Your task to perform on an android device: turn on improve location accuracy Image 0: 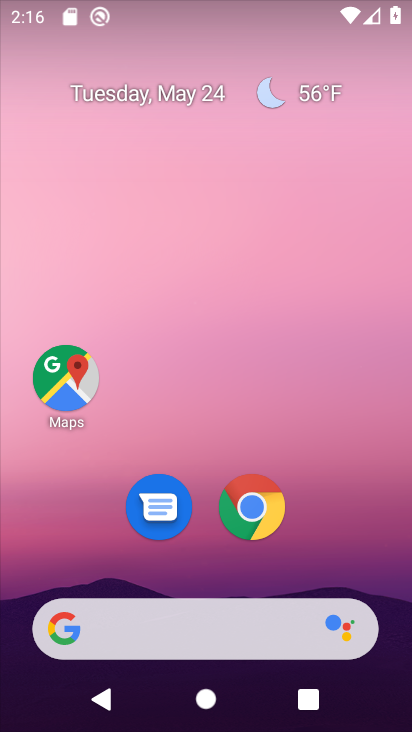
Step 0: press home button
Your task to perform on an android device: turn on improve location accuracy Image 1: 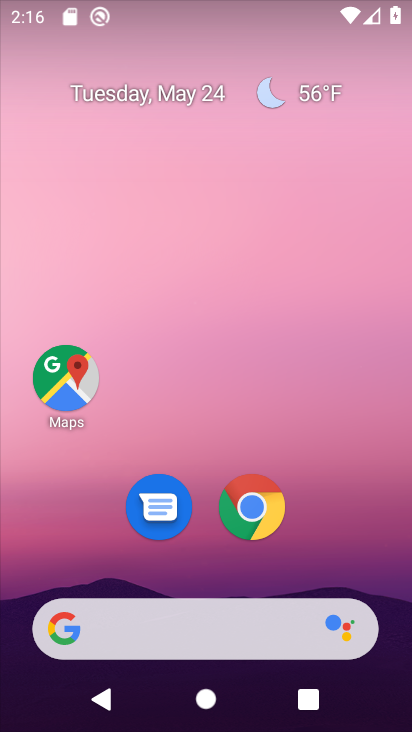
Step 1: drag from (228, 440) to (259, 37)
Your task to perform on an android device: turn on improve location accuracy Image 2: 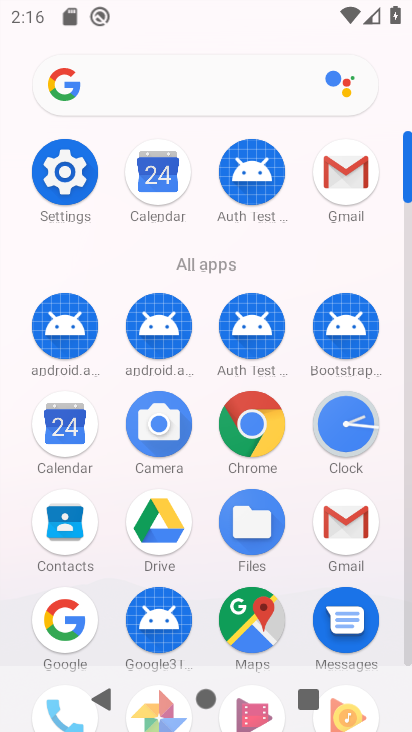
Step 2: click (54, 167)
Your task to perform on an android device: turn on improve location accuracy Image 3: 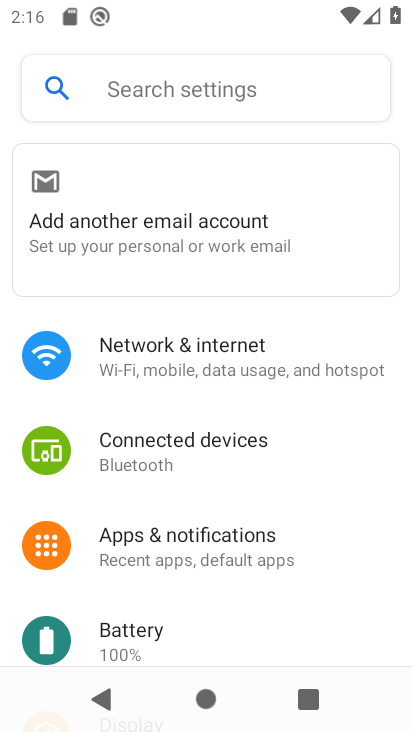
Step 3: drag from (194, 585) to (243, 166)
Your task to perform on an android device: turn on improve location accuracy Image 4: 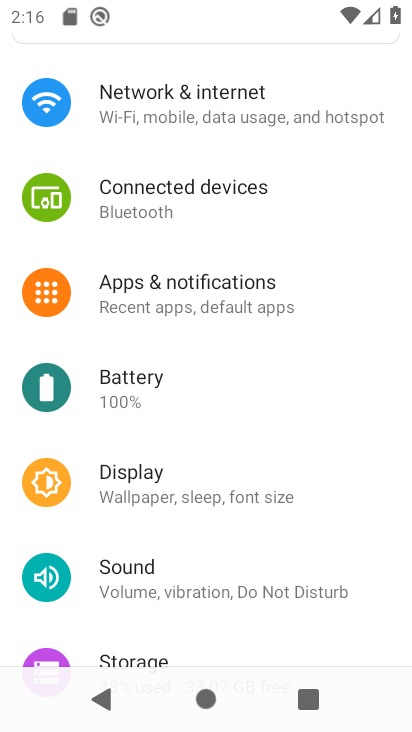
Step 4: drag from (189, 606) to (216, 165)
Your task to perform on an android device: turn on improve location accuracy Image 5: 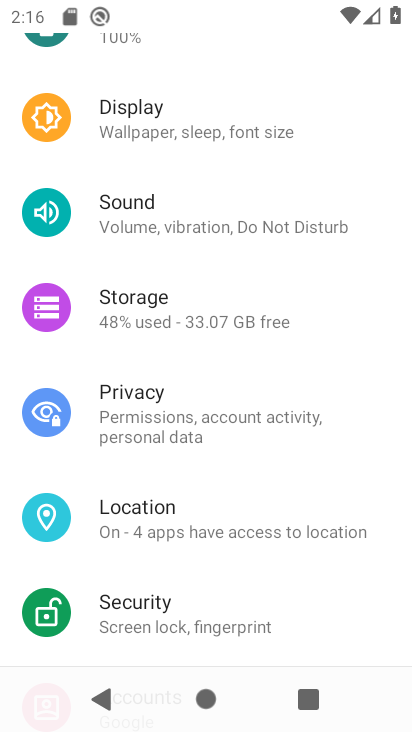
Step 5: click (177, 511)
Your task to perform on an android device: turn on improve location accuracy Image 6: 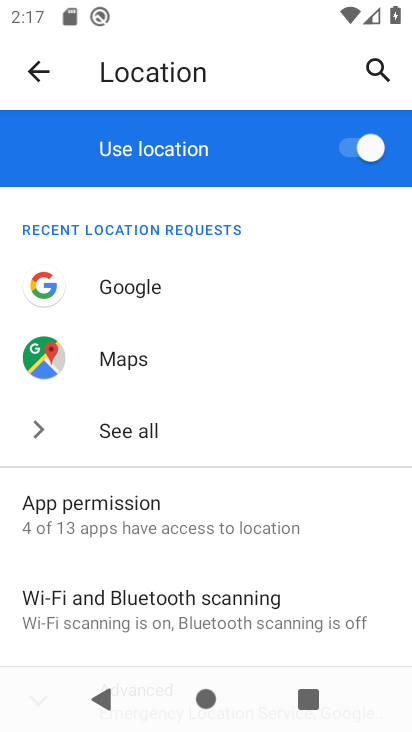
Step 6: drag from (204, 623) to (233, 247)
Your task to perform on an android device: turn on improve location accuracy Image 7: 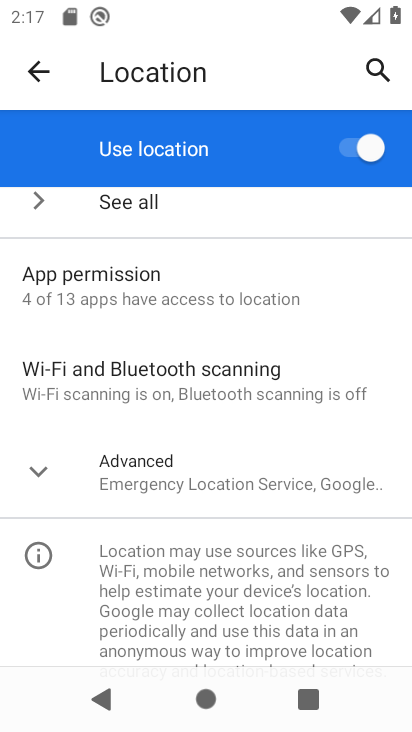
Step 7: click (56, 468)
Your task to perform on an android device: turn on improve location accuracy Image 8: 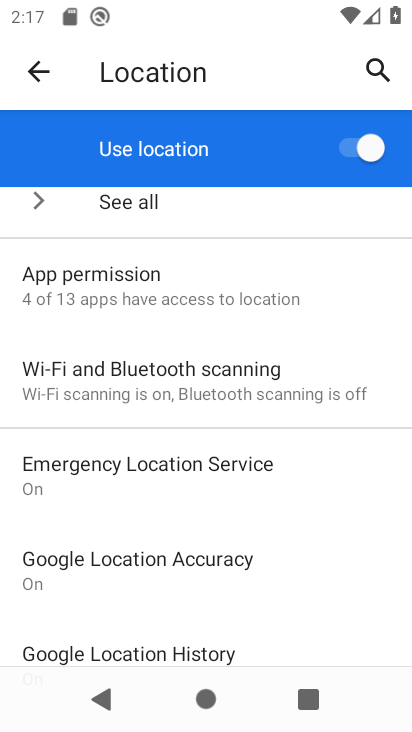
Step 8: click (139, 570)
Your task to perform on an android device: turn on improve location accuracy Image 9: 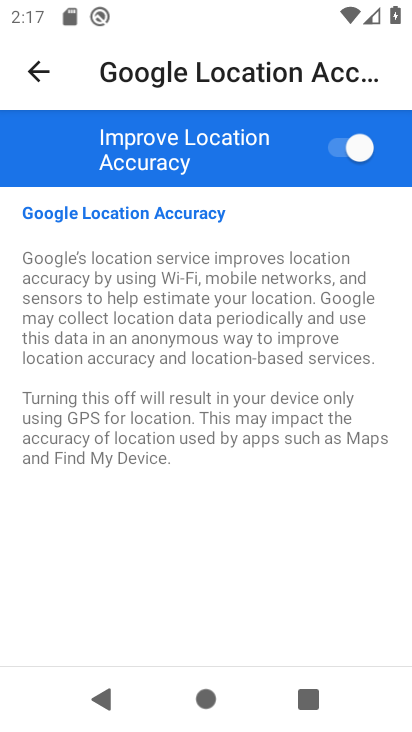
Step 9: task complete